Your task to perform on an android device: turn off improve location accuracy Image 0: 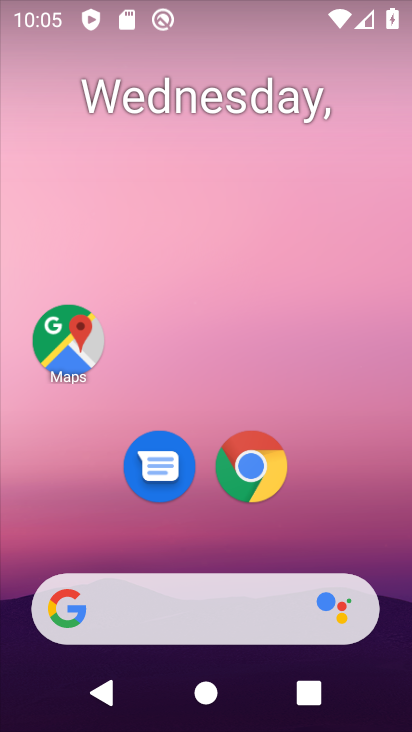
Step 0: drag from (233, 719) to (212, 164)
Your task to perform on an android device: turn off improve location accuracy Image 1: 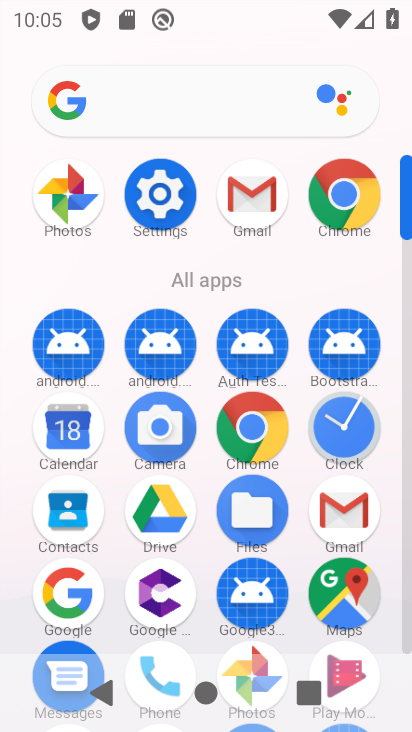
Step 1: click (167, 193)
Your task to perform on an android device: turn off improve location accuracy Image 2: 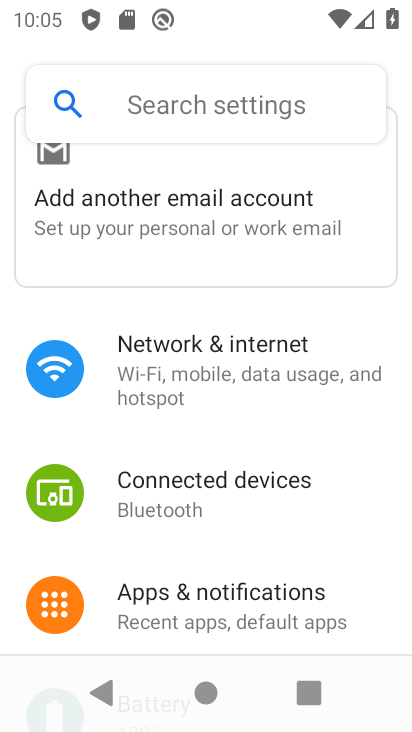
Step 2: drag from (198, 610) to (195, 281)
Your task to perform on an android device: turn off improve location accuracy Image 3: 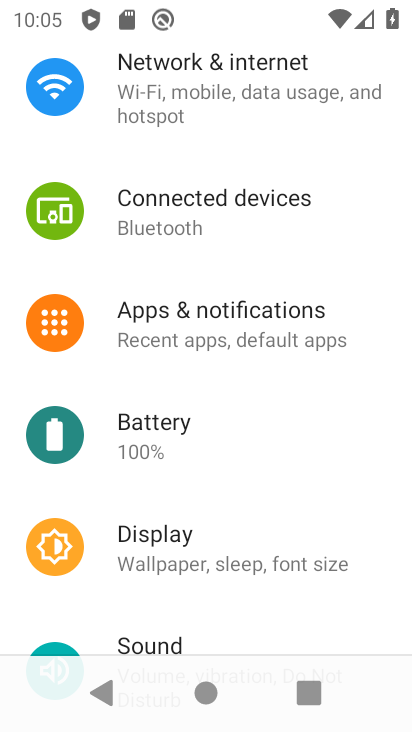
Step 3: drag from (165, 581) to (172, 285)
Your task to perform on an android device: turn off improve location accuracy Image 4: 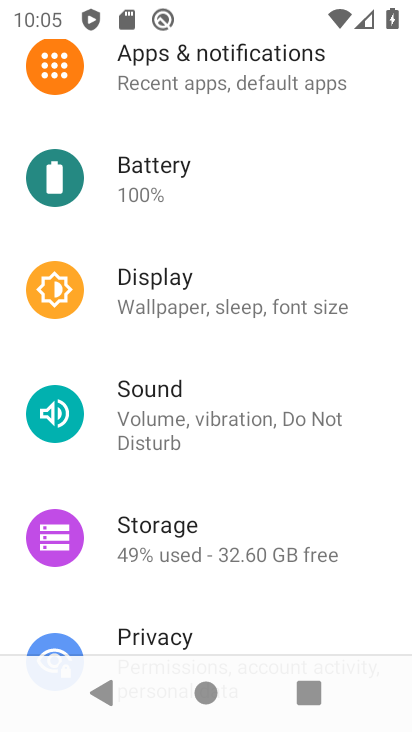
Step 4: drag from (181, 593) to (201, 251)
Your task to perform on an android device: turn off improve location accuracy Image 5: 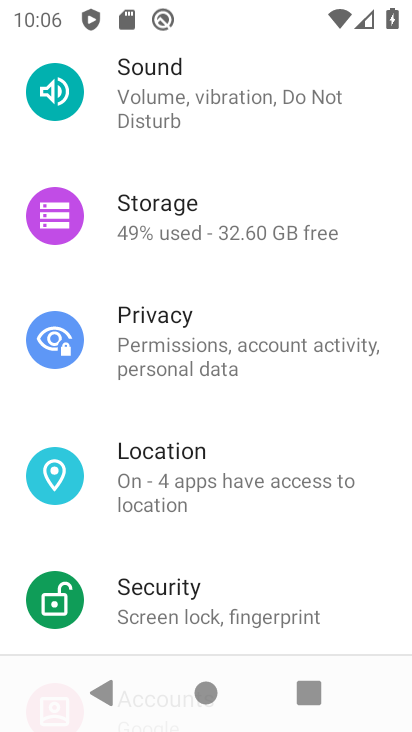
Step 5: click (156, 477)
Your task to perform on an android device: turn off improve location accuracy Image 6: 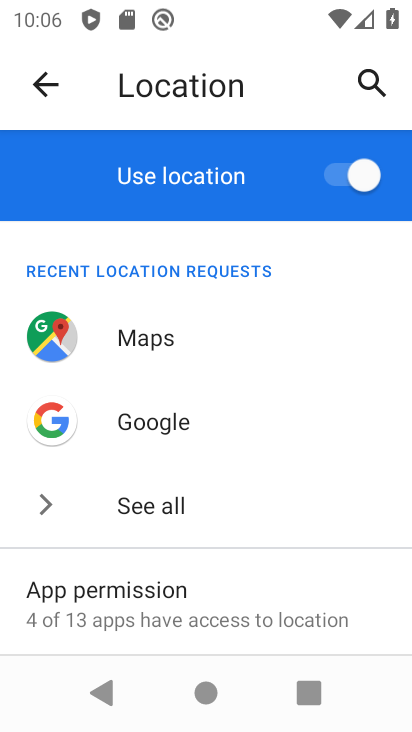
Step 6: drag from (179, 610) to (179, 317)
Your task to perform on an android device: turn off improve location accuracy Image 7: 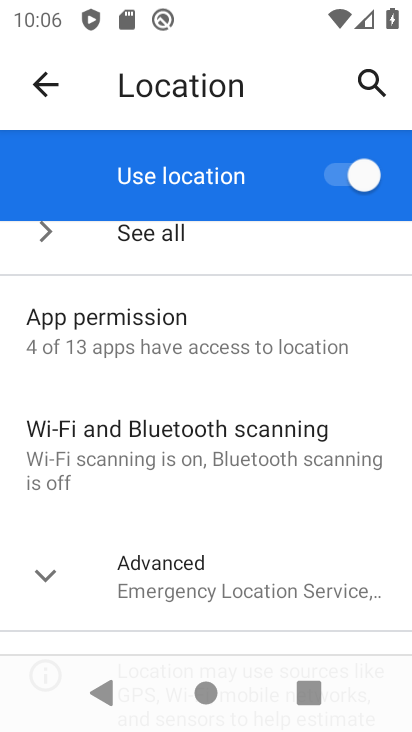
Step 7: drag from (150, 603) to (141, 389)
Your task to perform on an android device: turn off improve location accuracy Image 8: 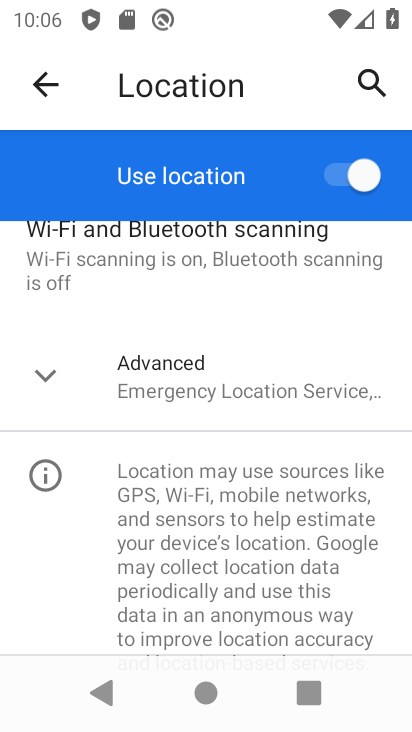
Step 8: click (181, 387)
Your task to perform on an android device: turn off improve location accuracy Image 9: 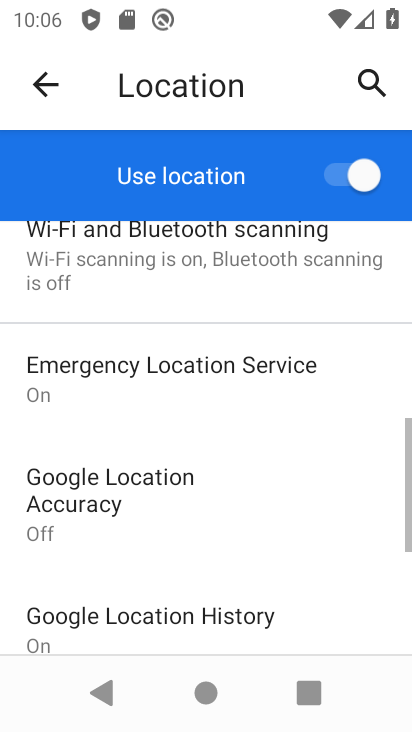
Step 9: drag from (206, 574) to (205, 375)
Your task to perform on an android device: turn off improve location accuracy Image 10: 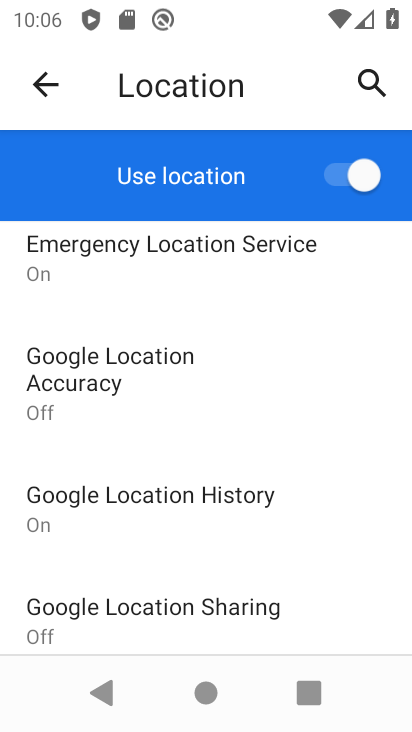
Step 10: click (86, 363)
Your task to perform on an android device: turn off improve location accuracy Image 11: 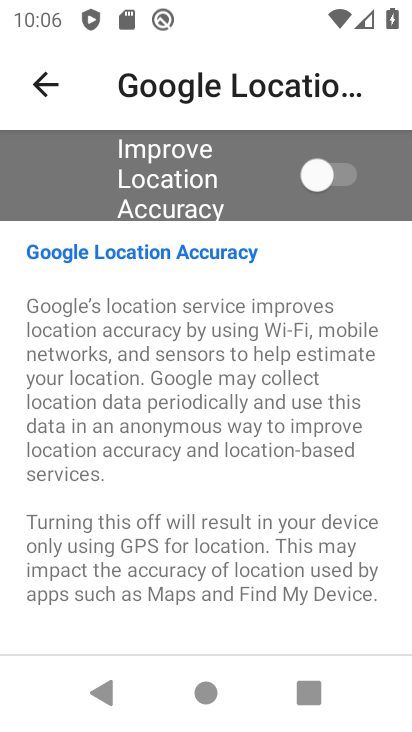
Step 11: task complete